Your task to perform on an android device: turn smart compose on in the gmail app Image 0: 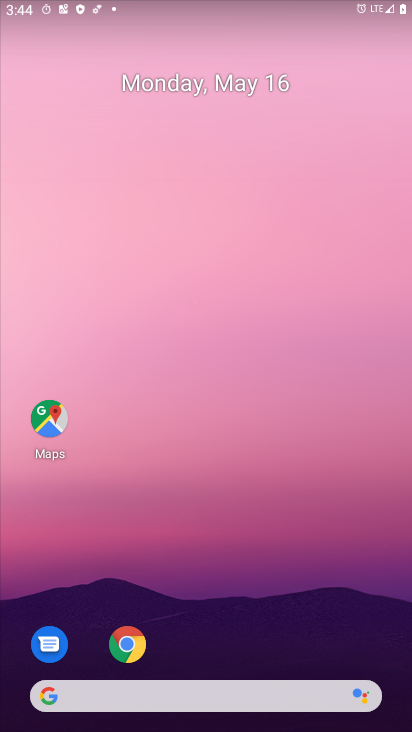
Step 0: drag from (204, 657) to (201, 175)
Your task to perform on an android device: turn smart compose on in the gmail app Image 1: 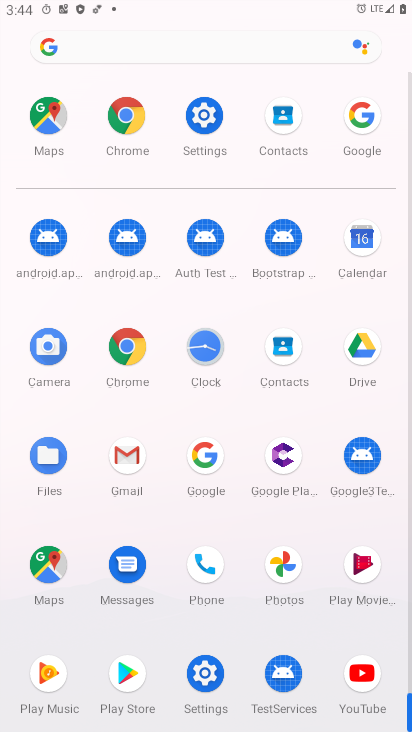
Step 1: click (125, 469)
Your task to perform on an android device: turn smart compose on in the gmail app Image 2: 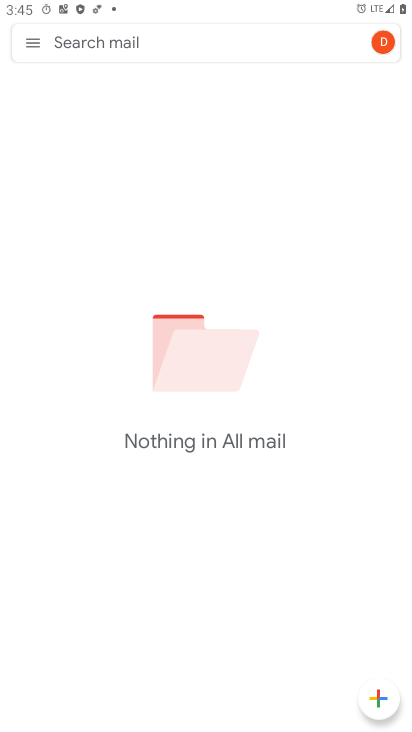
Step 2: press home button
Your task to perform on an android device: turn smart compose on in the gmail app Image 3: 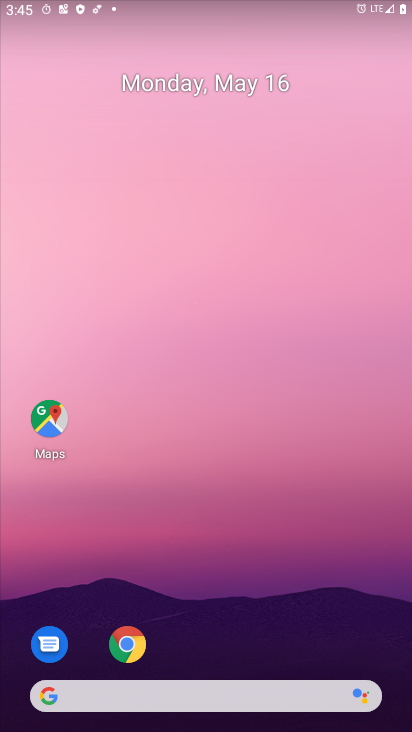
Step 3: drag from (275, 504) to (365, 100)
Your task to perform on an android device: turn smart compose on in the gmail app Image 4: 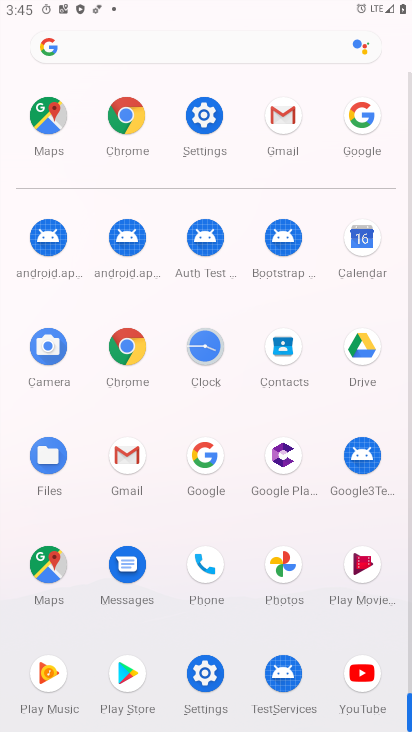
Step 4: click (138, 470)
Your task to perform on an android device: turn smart compose on in the gmail app Image 5: 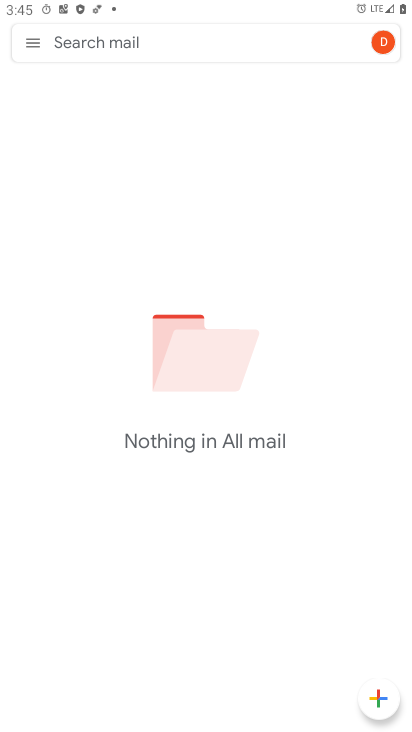
Step 5: click (41, 36)
Your task to perform on an android device: turn smart compose on in the gmail app Image 6: 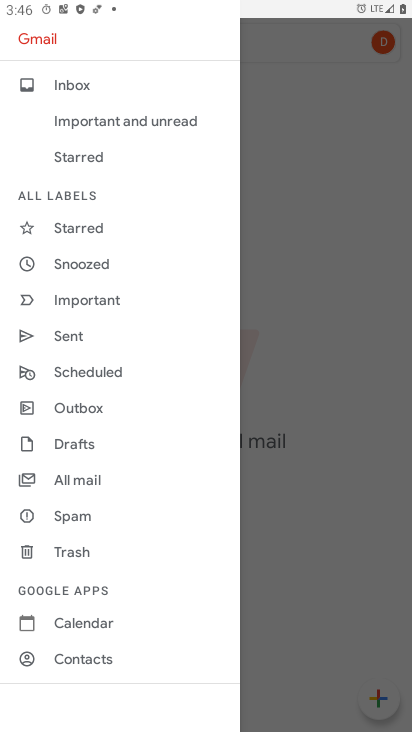
Step 6: drag from (79, 626) to (138, 280)
Your task to perform on an android device: turn smart compose on in the gmail app Image 7: 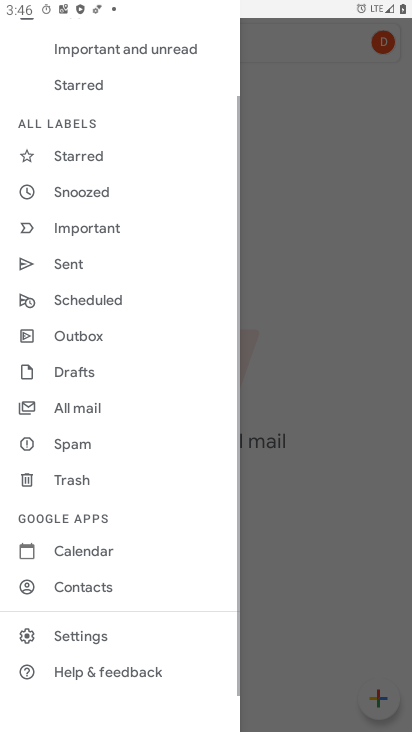
Step 7: click (68, 636)
Your task to perform on an android device: turn smart compose on in the gmail app Image 8: 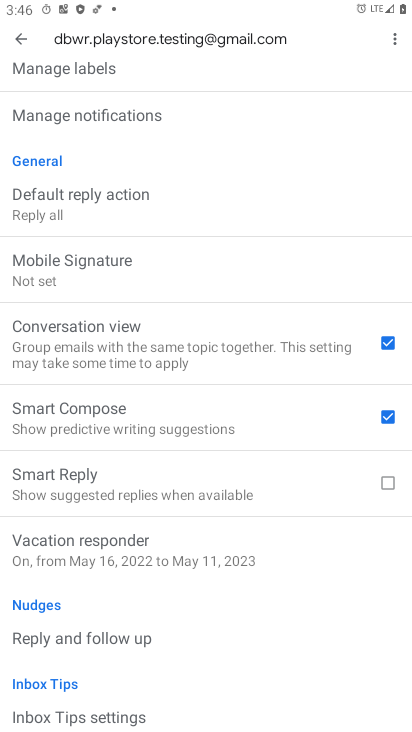
Step 8: click (161, 351)
Your task to perform on an android device: turn smart compose on in the gmail app Image 9: 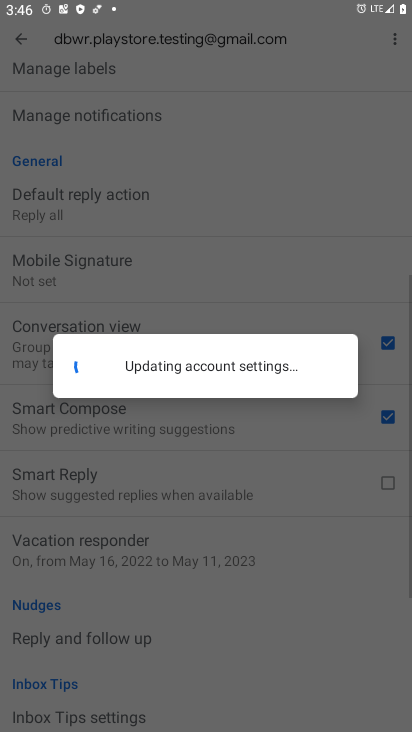
Step 9: task complete